Your task to perform on an android device: toggle translation in the chrome app Image 0: 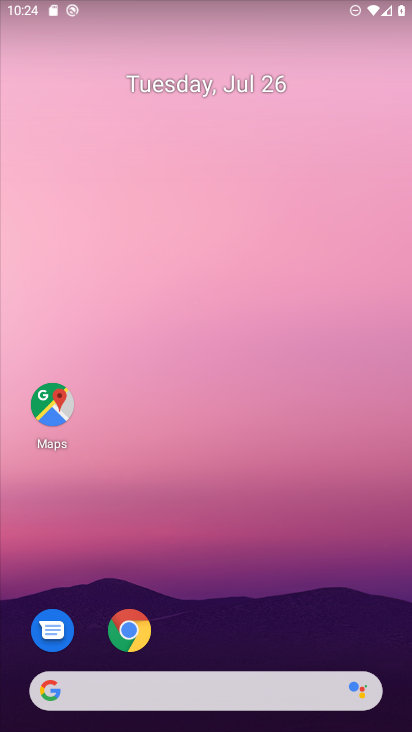
Step 0: click (128, 633)
Your task to perform on an android device: toggle translation in the chrome app Image 1: 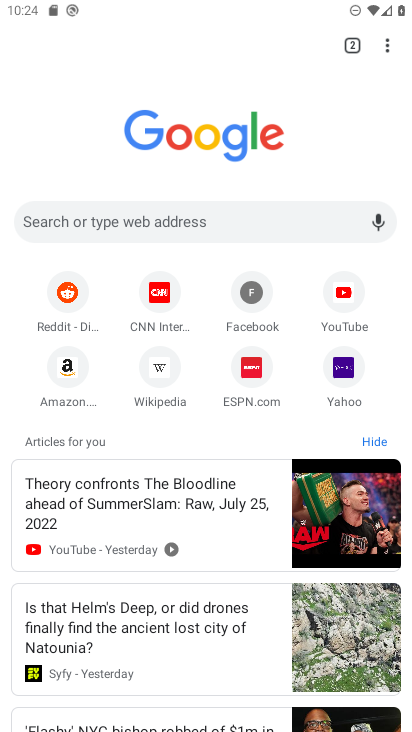
Step 1: click (387, 50)
Your task to perform on an android device: toggle translation in the chrome app Image 2: 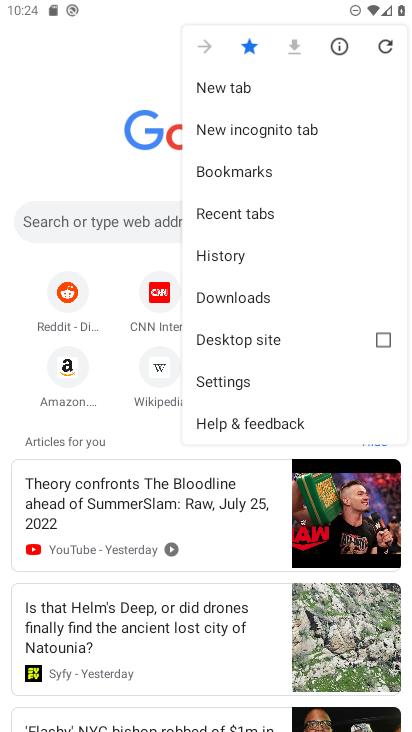
Step 2: click (236, 384)
Your task to perform on an android device: toggle translation in the chrome app Image 3: 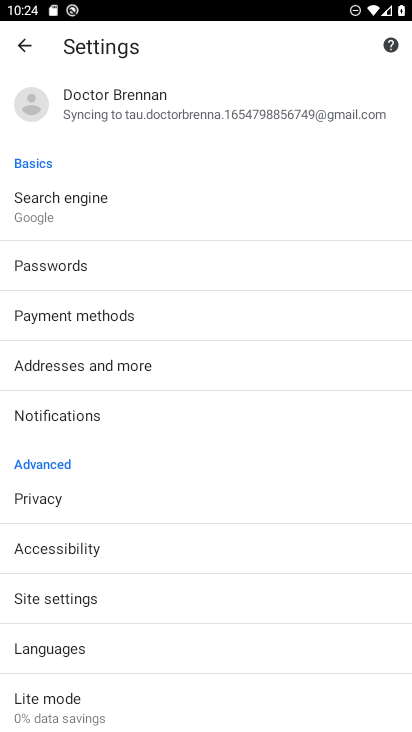
Step 3: click (65, 646)
Your task to perform on an android device: toggle translation in the chrome app Image 4: 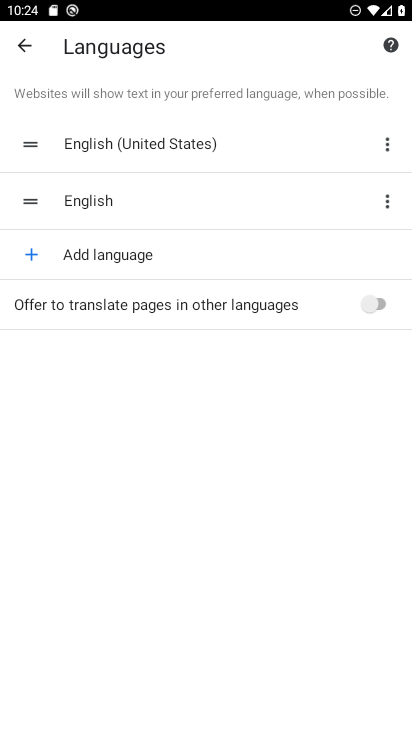
Step 4: click (383, 305)
Your task to perform on an android device: toggle translation in the chrome app Image 5: 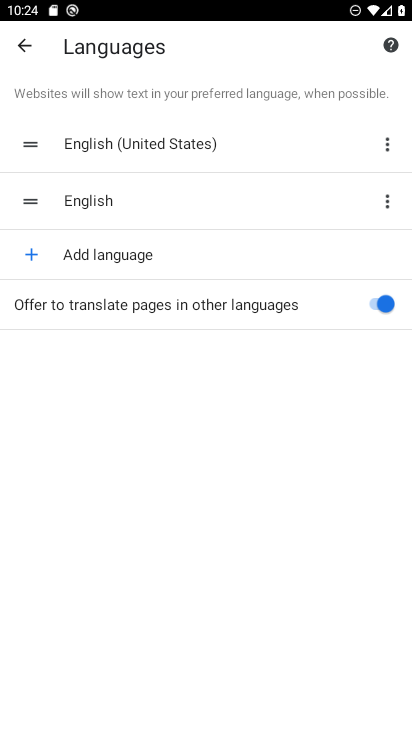
Step 5: task complete